Your task to perform on an android device: show emergency info Image 0: 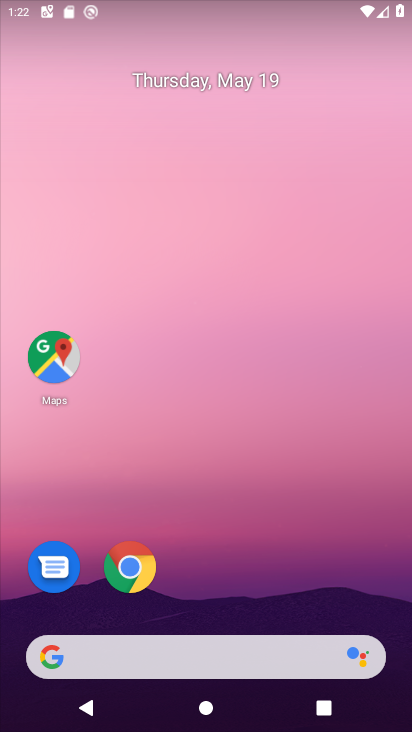
Step 0: drag from (275, 482) to (319, 206)
Your task to perform on an android device: show emergency info Image 1: 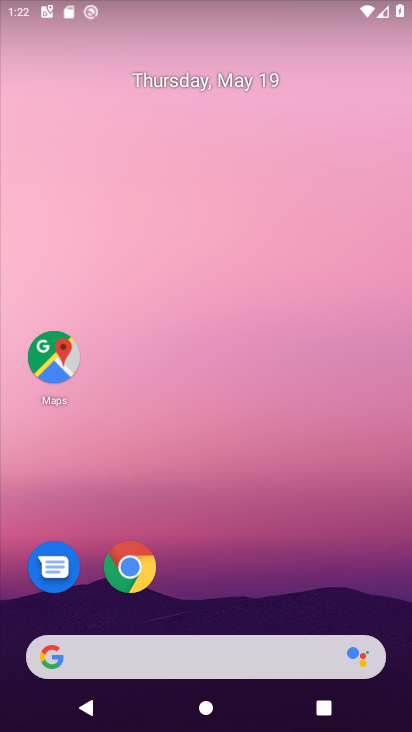
Step 1: drag from (273, 525) to (280, 118)
Your task to perform on an android device: show emergency info Image 2: 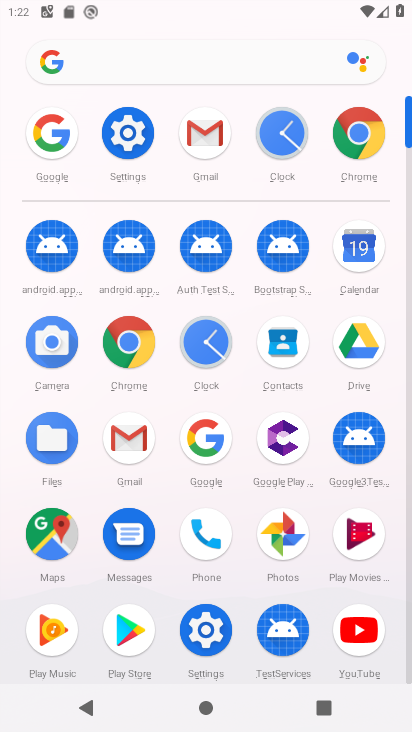
Step 2: click (126, 144)
Your task to perform on an android device: show emergency info Image 3: 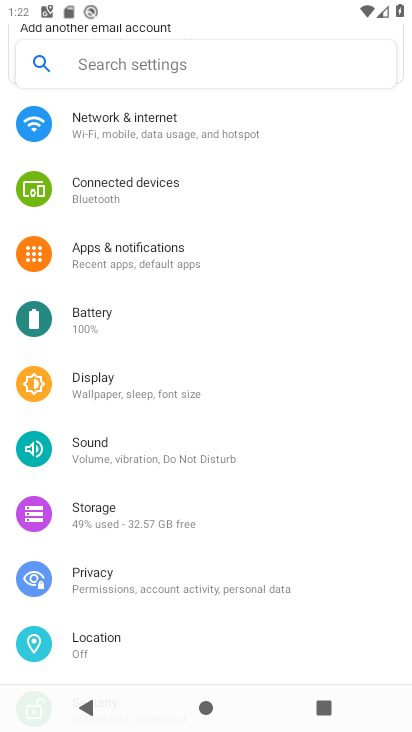
Step 3: drag from (126, 552) to (121, 280)
Your task to perform on an android device: show emergency info Image 4: 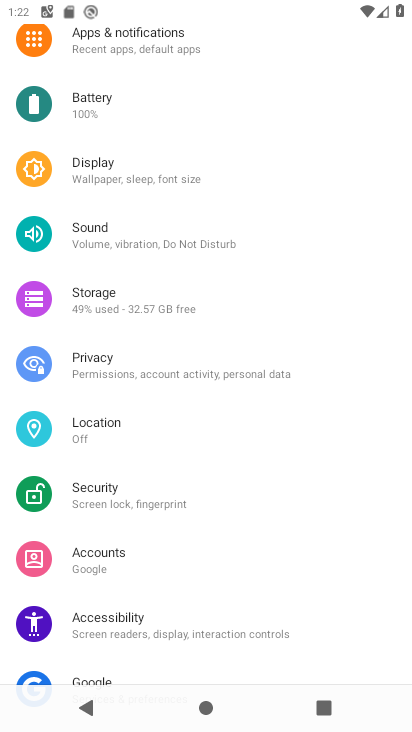
Step 4: drag from (175, 572) to (175, 220)
Your task to perform on an android device: show emergency info Image 5: 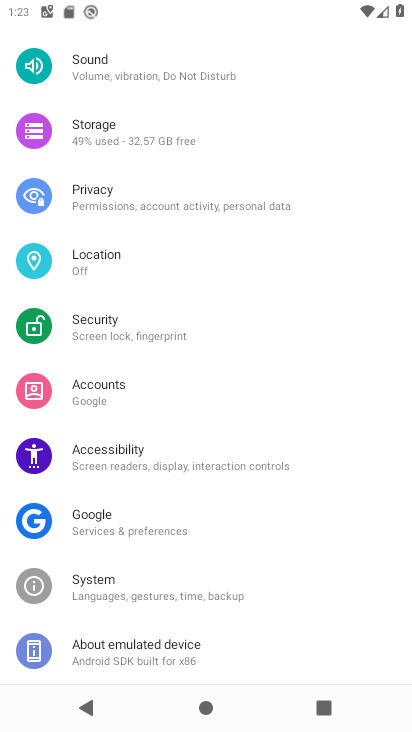
Step 5: click (134, 652)
Your task to perform on an android device: show emergency info Image 6: 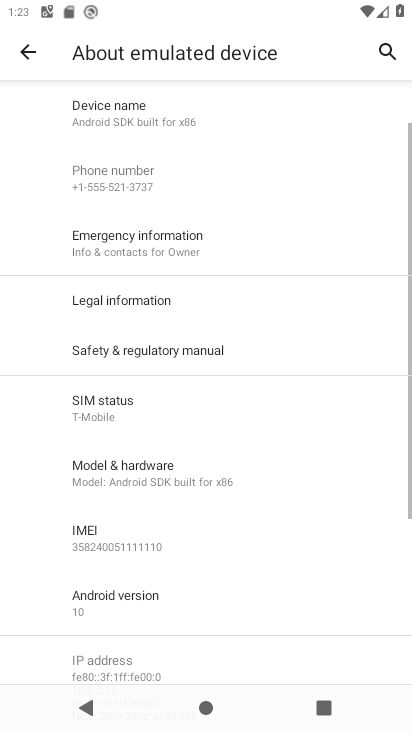
Step 6: click (141, 241)
Your task to perform on an android device: show emergency info Image 7: 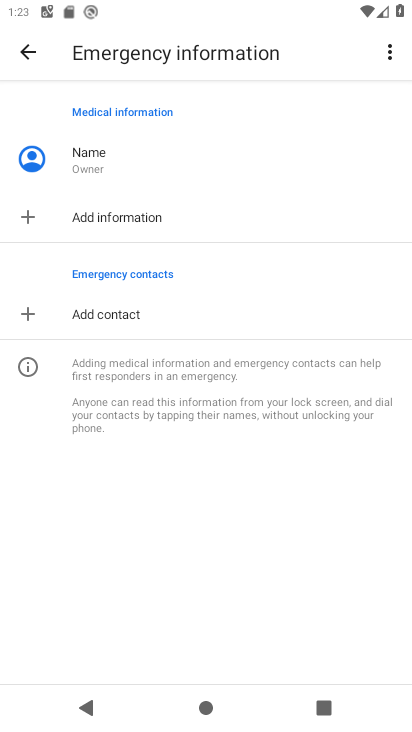
Step 7: task complete